Your task to perform on an android device: toggle notification dots Image 0: 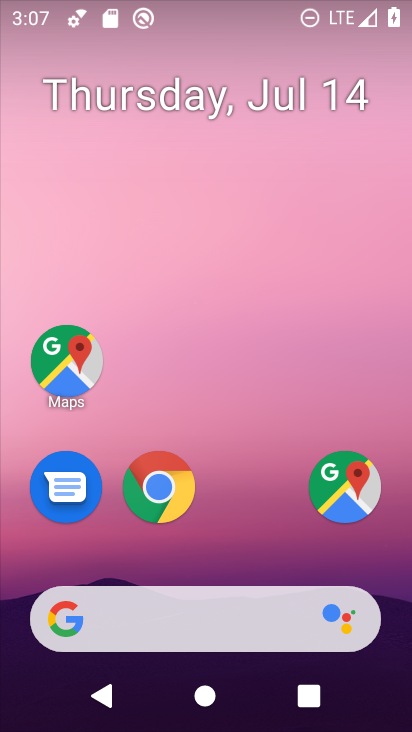
Step 0: drag from (253, 532) to (264, 137)
Your task to perform on an android device: toggle notification dots Image 1: 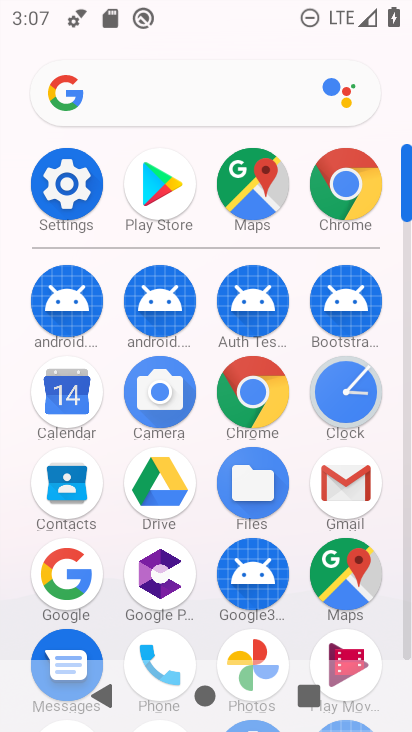
Step 1: click (76, 204)
Your task to perform on an android device: toggle notification dots Image 2: 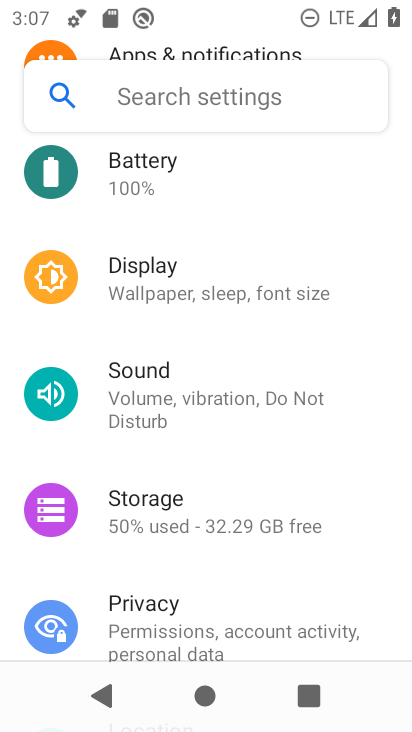
Step 2: drag from (347, 212) to (363, 379)
Your task to perform on an android device: toggle notification dots Image 3: 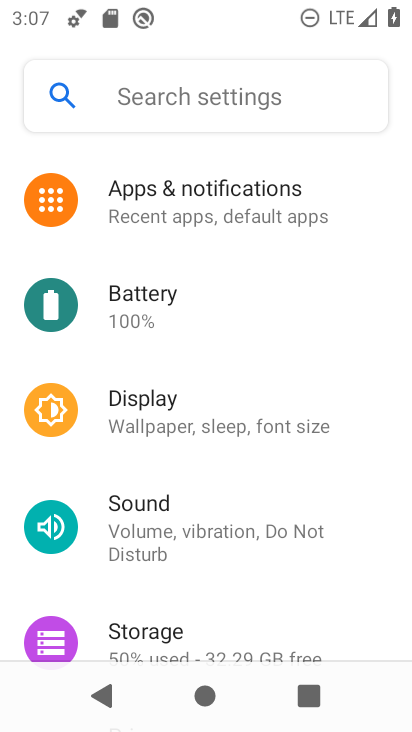
Step 3: drag from (361, 284) to (382, 457)
Your task to perform on an android device: toggle notification dots Image 4: 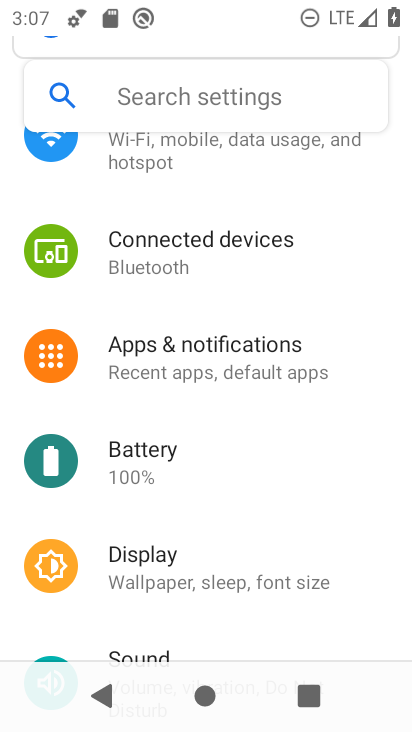
Step 4: drag from (349, 314) to (356, 393)
Your task to perform on an android device: toggle notification dots Image 5: 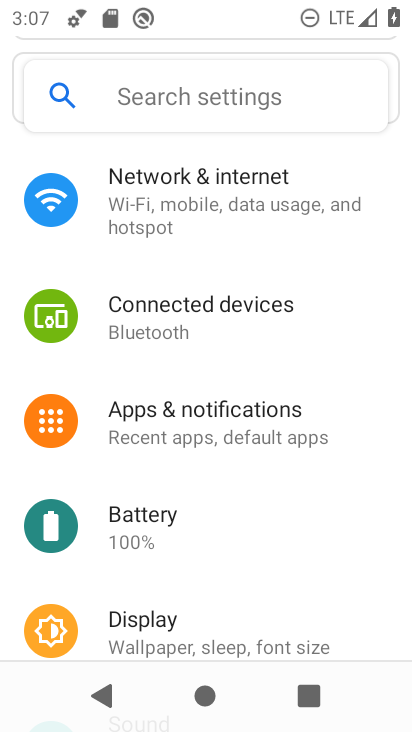
Step 5: drag from (348, 300) to (349, 421)
Your task to perform on an android device: toggle notification dots Image 6: 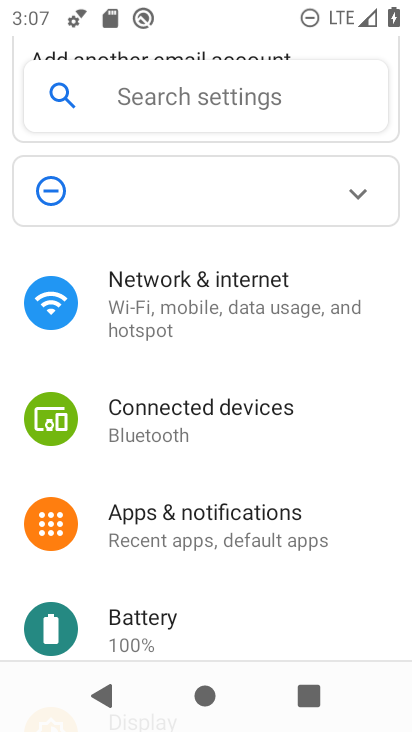
Step 6: drag from (352, 351) to (367, 486)
Your task to perform on an android device: toggle notification dots Image 7: 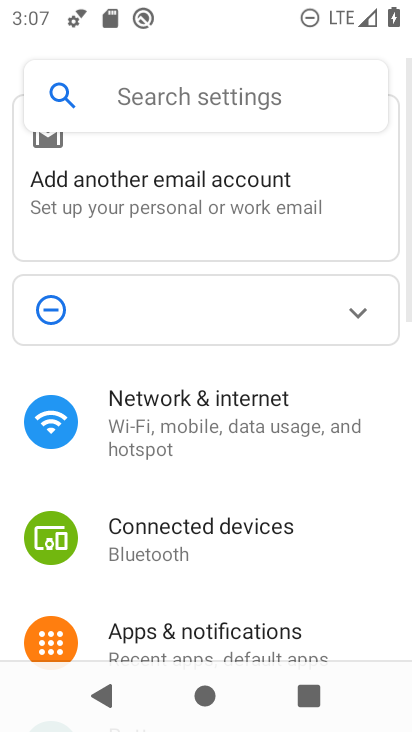
Step 7: drag from (349, 564) to (336, 472)
Your task to perform on an android device: toggle notification dots Image 8: 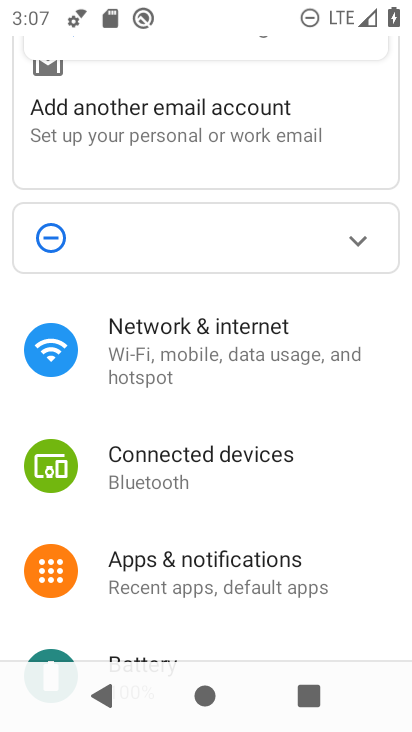
Step 8: drag from (351, 612) to (349, 469)
Your task to perform on an android device: toggle notification dots Image 9: 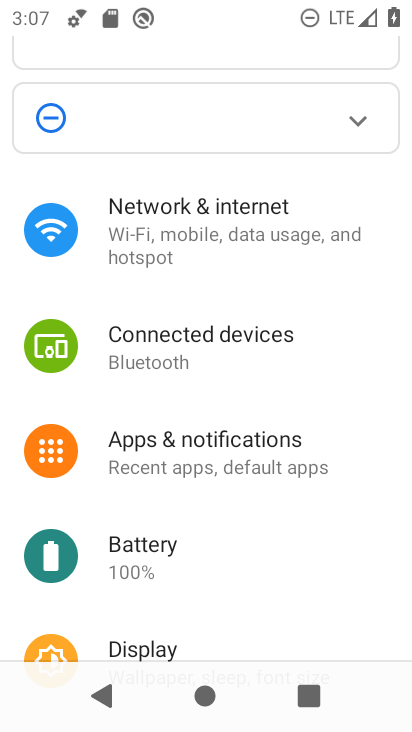
Step 9: drag from (349, 592) to (345, 510)
Your task to perform on an android device: toggle notification dots Image 10: 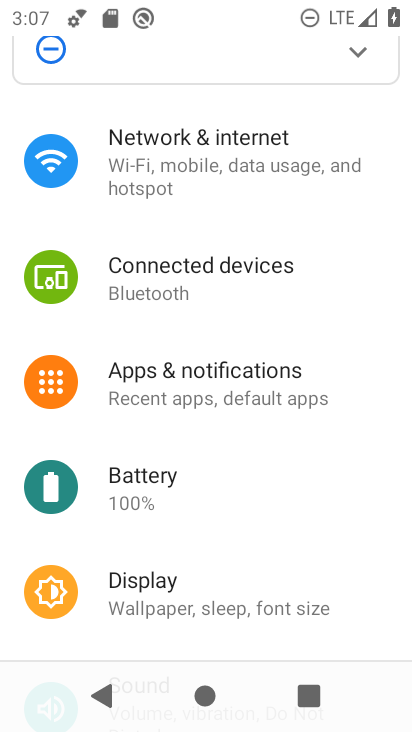
Step 10: drag from (350, 555) to (343, 451)
Your task to perform on an android device: toggle notification dots Image 11: 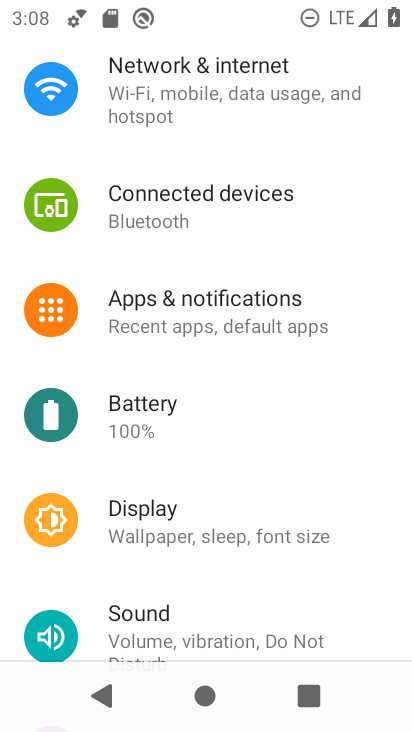
Step 11: drag from (363, 594) to (352, 481)
Your task to perform on an android device: toggle notification dots Image 12: 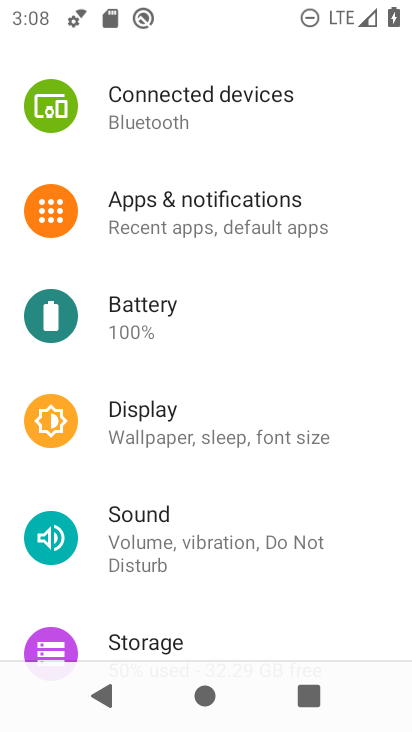
Step 12: drag from (356, 579) to (348, 418)
Your task to perform on an android device: toggle notification dots Image 13: 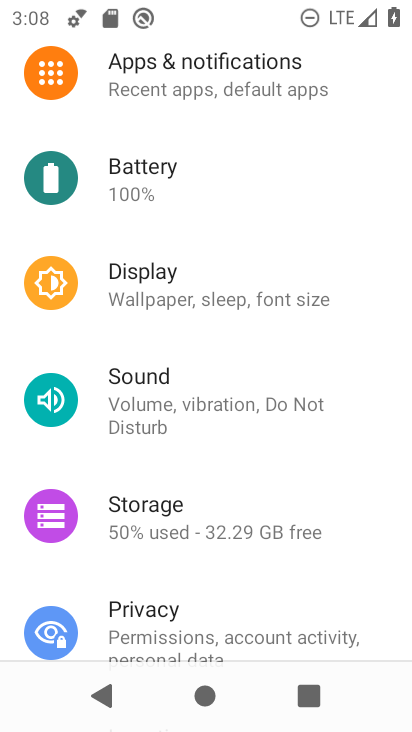
Step 13: drag from (343, 251) to (362, 496)
Your task to perform on an android device: toggle notification dots Image 14: 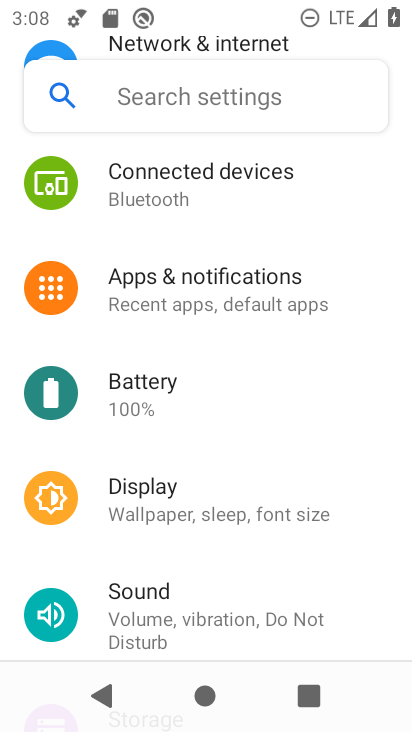
Step 14: drag from (349, 332) to (362, 448)
Your task to perform on an android device: toggle notification dots Image 15: 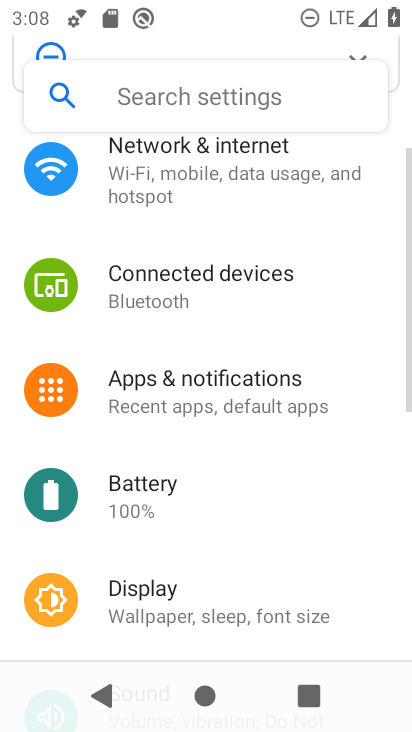
Step 15: click (275, 394)
Your task to perform on an android device: toggle notification dots Image 16: 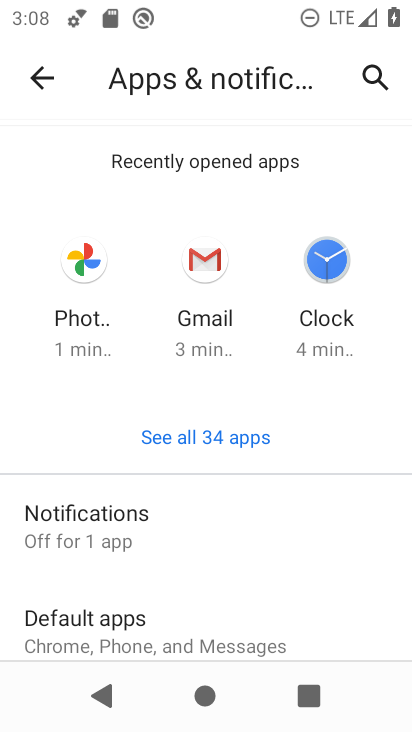
Step 16: drag from (294, 525) to (298, 465)
Your task to perform on an android device: toggle notification dots Image 17: 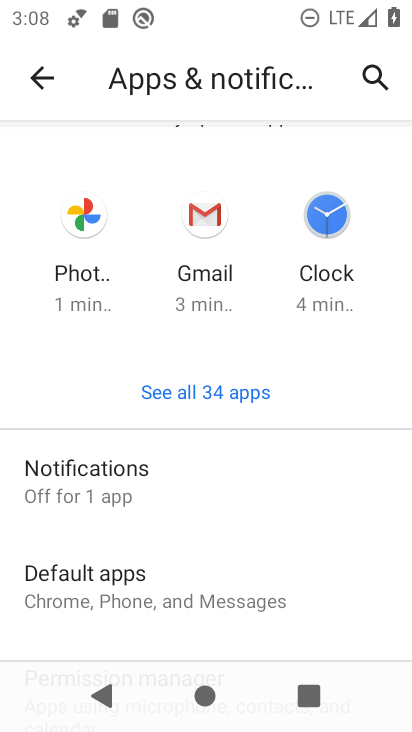
Step 17: click (167, 481)
Your task to perform on an android device: toggle notification dots Image 18: 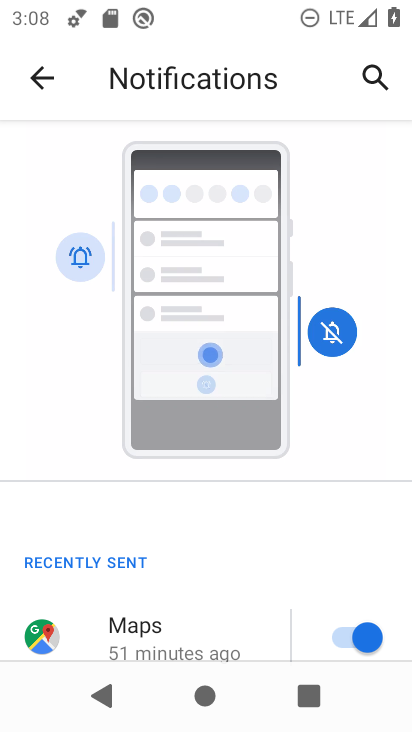
Step 18: drag from (237, 585) to (248, 511)
Your task to perform on an android device: toggle notification dots Image 19: 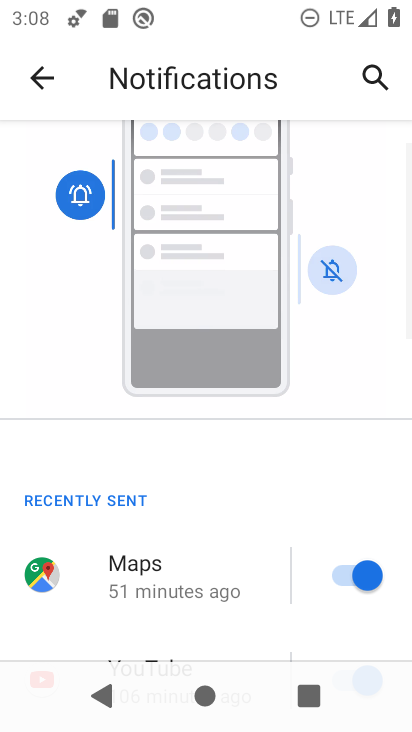
Step 19: drag from (259, 632) to (265, 467)
Your task to perform on an android device: toggle notification dots Image 20: 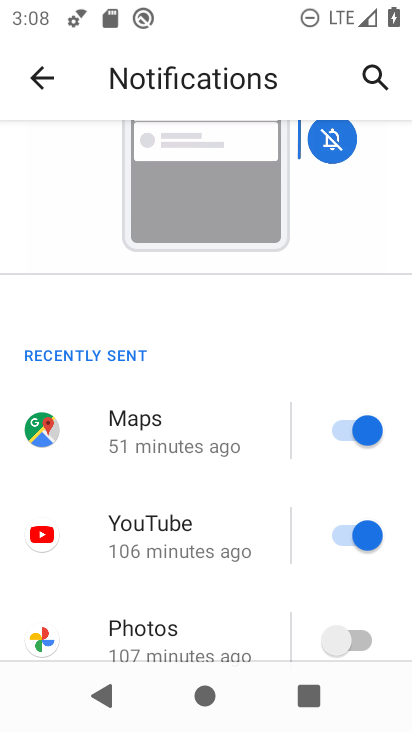
Step 20: drag from (238, 591) to (246, 462)
Your task to perform on an android device: toggle notification dots Image 21: 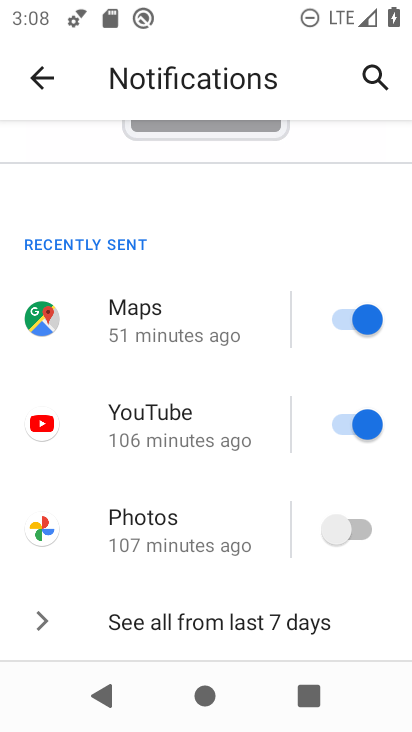
Step 21: drag from (233, 558) to (241, 454)
Your task to perform on an android device: toggle notification dots Image 22: 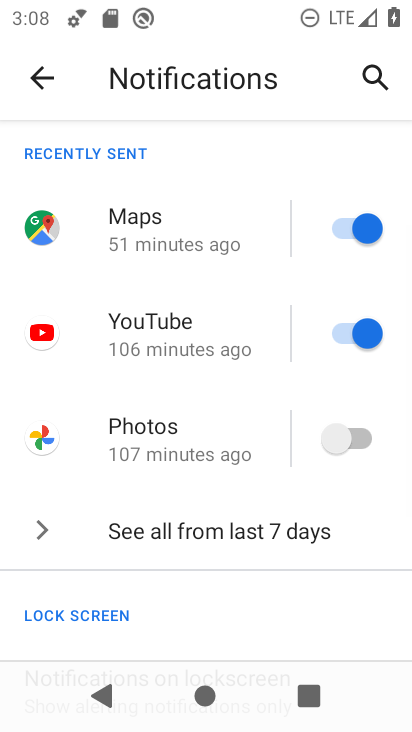
Step 22: drag from (250, 601) to (252, 415)
Your task to perform on an android device: toggle notification dots Image 23: 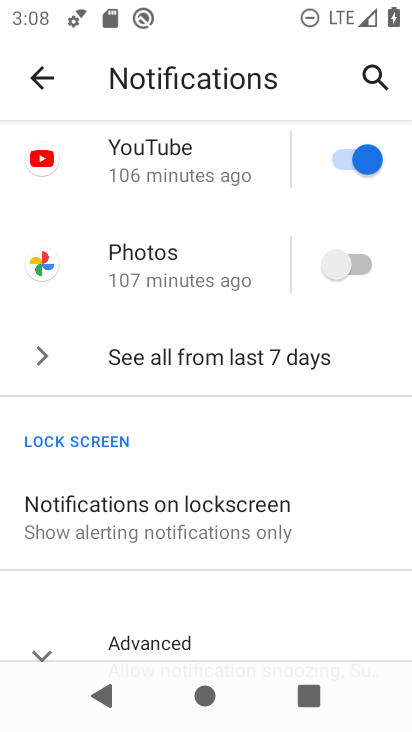
Step 23: drag from (263, 597) to (270, 501)
Your task to perform on an android device: toggle notification dots Image 24: 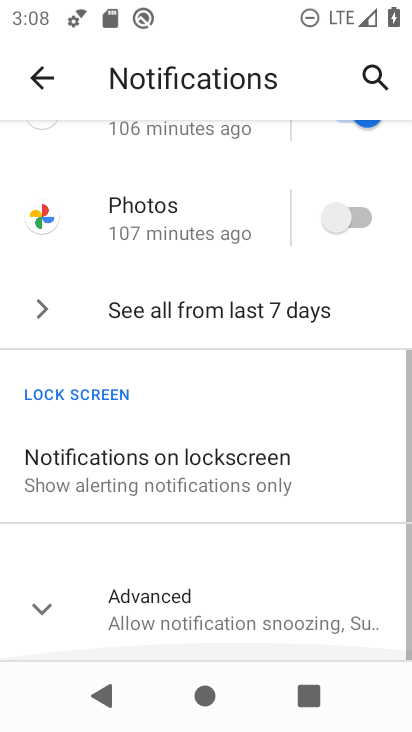
Step 24: click (236, 599)
Your task to perform on an android device: toggle notification dots Image 25: 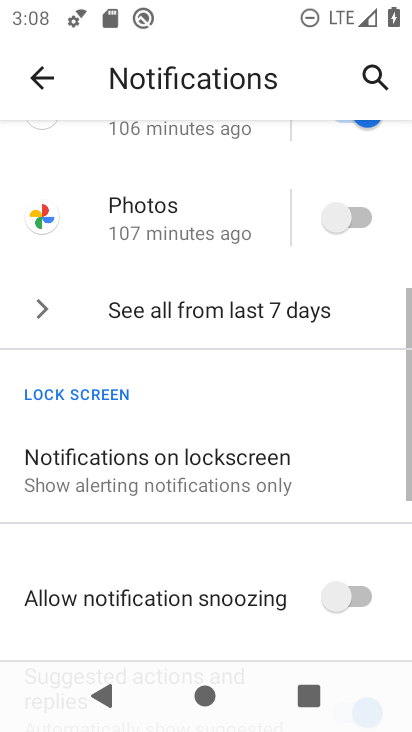
Step 25: drag from (264, 602) to (272, 496)
Your task to perform on an android device: toggle notification dots Image 26: 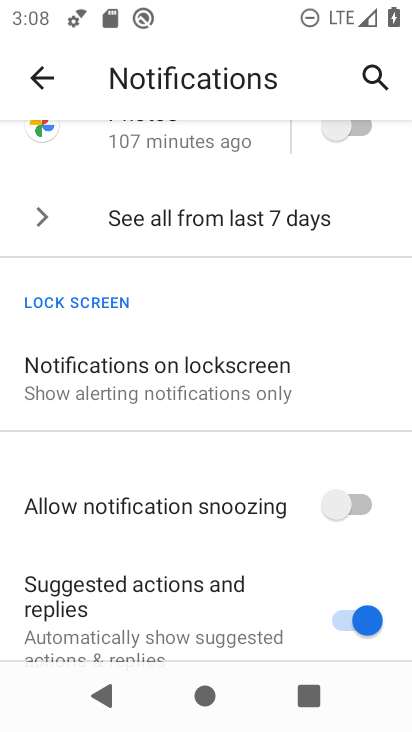
Step 26: drag from (271, 610) to (269, 445)
Your task to perform on an android device: toggle notification dots Image 27: 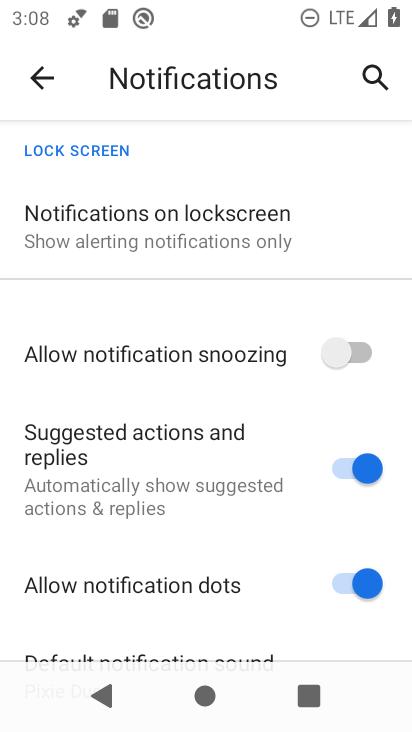
Step 27: click (350, 604)
Your task to perform on an android device: toggle notification dots Image 28: 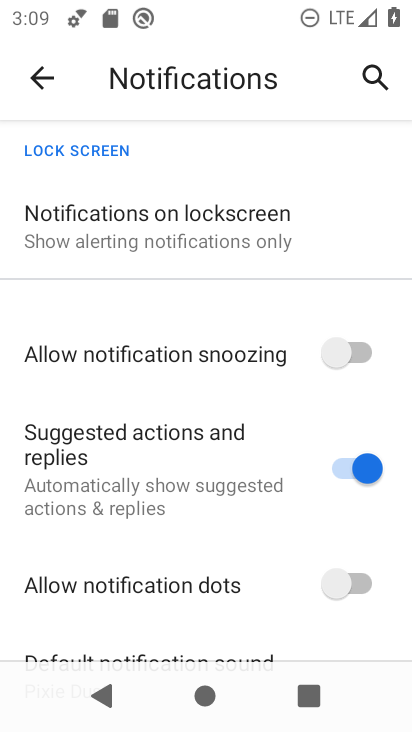
Step 28: task complete